Your task to perform on an android device: Go to accessibility settings Image 0: 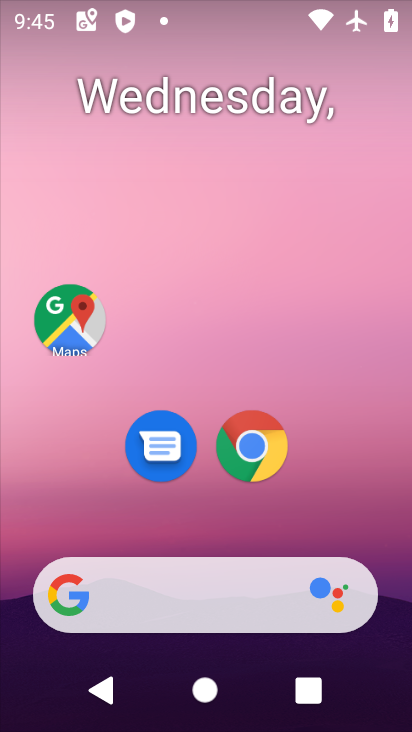
Step 0: press home button
Your task to perform on an android device: Go to accessibility settings Image 1: 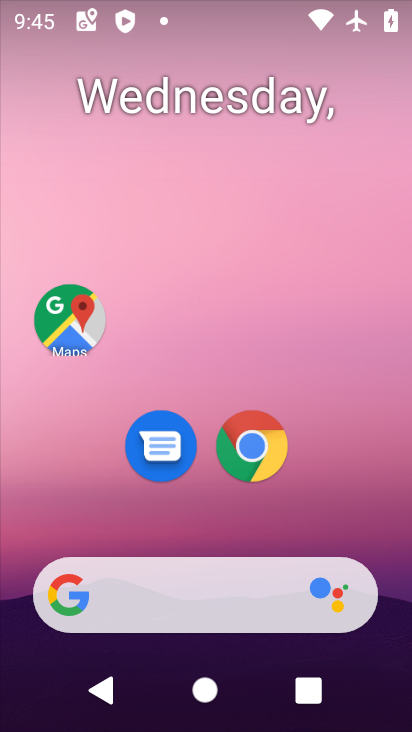
Step 1: drag from (158, 596) to (293, 189)
Your task to perform on an android device: Go to accessibility settings Image 2: 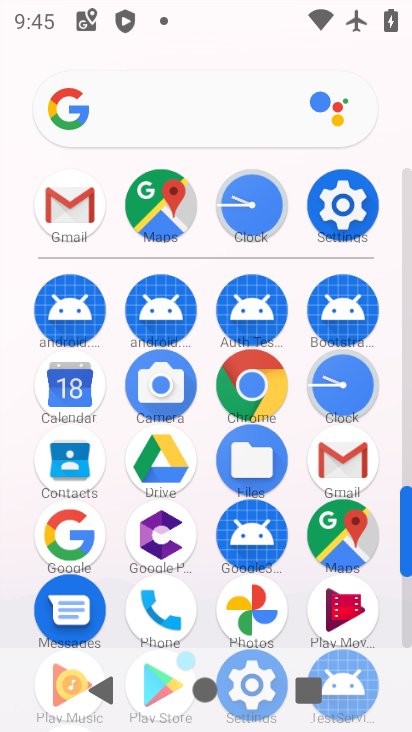
Step 2: click (348, 220)
Your task to perform on an android device: Go to accessibility settings Image 3: 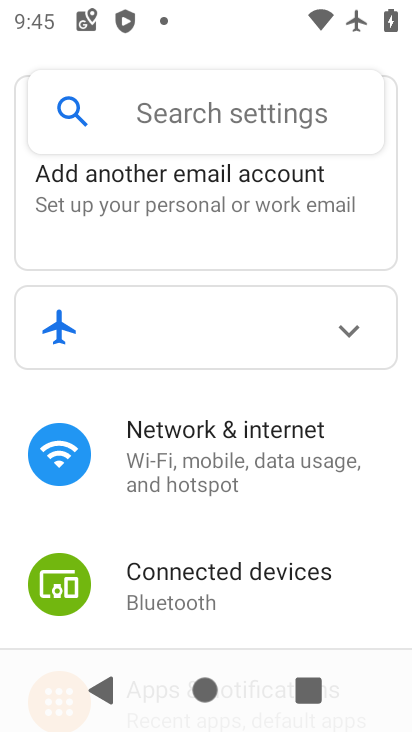
Step 3: drag from (264, 611) to (356, 183)
Your task to perform on an android device: Go to accessibility settings Image 4: 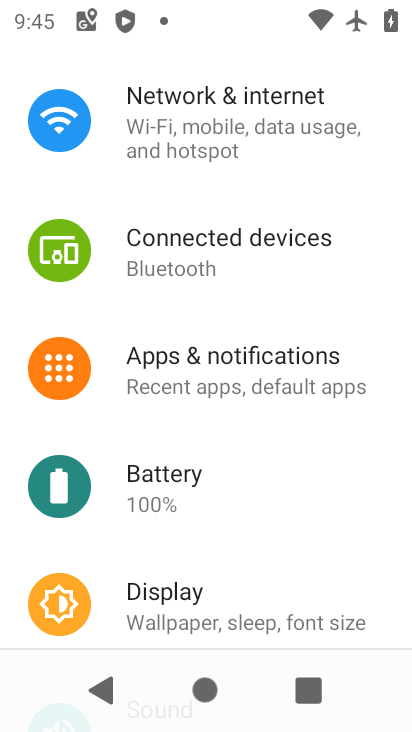
Step 4: drag from (255, 559) to (344, 226)
Your task to perform on an android device: Go to accessibility settings Image 5: 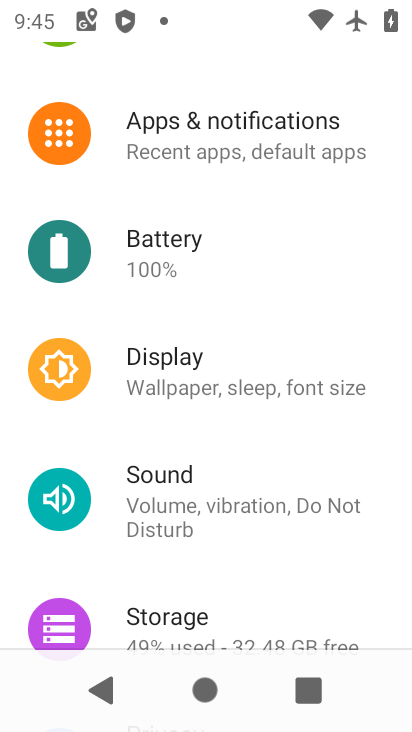
Step 5: drag from (265, 564) to (317, 217)
Your task to perform on an android device: Go to accessibility settings Image 6: 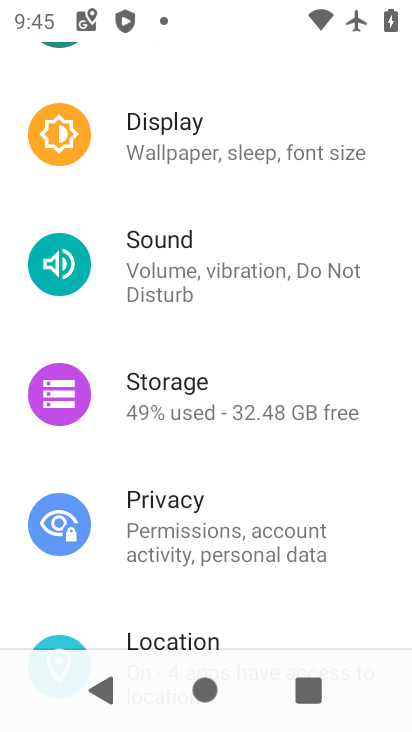
Step 6: drag from (264, 601) to (353, 221)
Your task to perform on an android device: Go to accessibility settings Image 7: 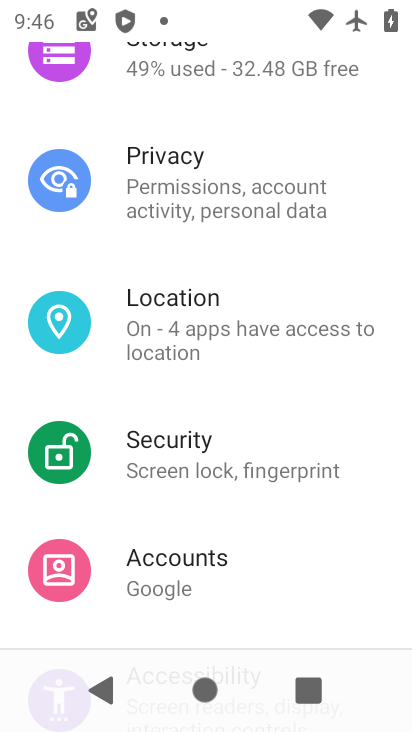
Step 7: drag from (276, 568) to (335, 216)
Your task to perform on an android device: Go to accessibility settings Image 8: 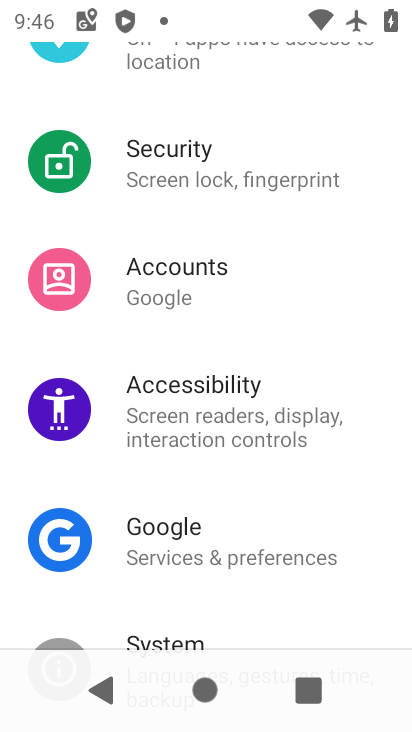
Step 8: click (204, 411)
Your task to perform on an android device: Go to accessibility settings Image 9: 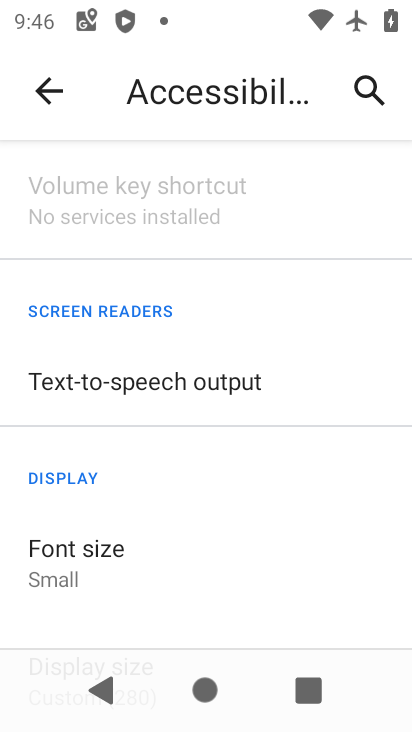
Step 9: task complete